Your task to perform on an android device: What's the news this morning? Image 0: 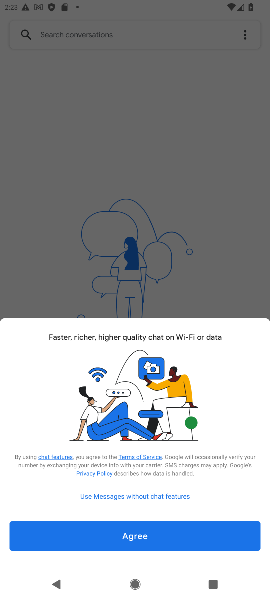
Step 0: press home button
Your task to perform on an android device: What's the news this morning? Image 1: 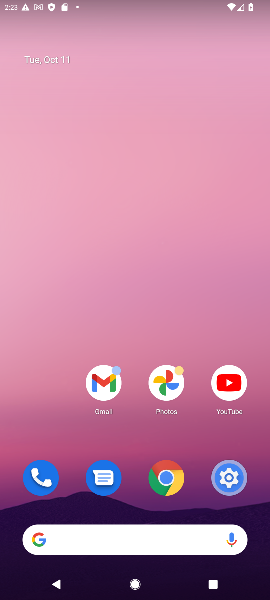
Step 1: click (162, 481)
Your task to perform on an android device: What's the news this morning? Image 2: 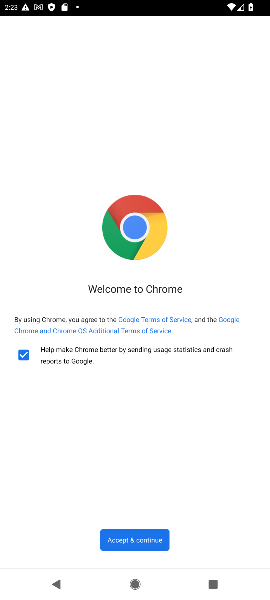
Step 2: click (135, 542)
Your task to perform on an android device: What's the news this morning? Image 3: 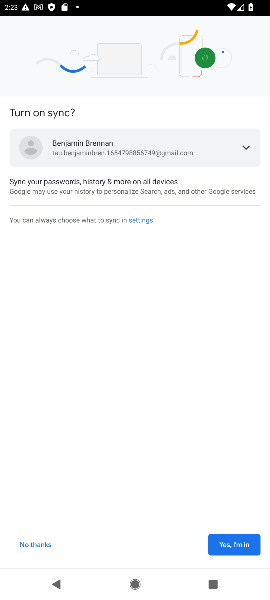
Step 3: click (230, 553)
Your task to perform on an android device: What's the news this morning? Image 4: 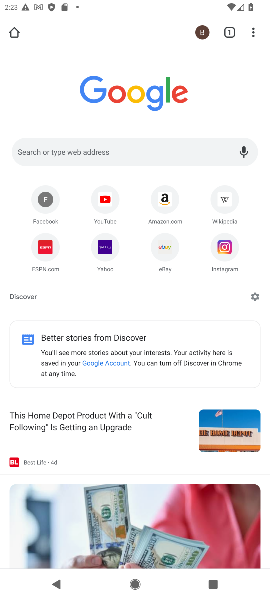
Step 4: click (138, 143)
Your task to perform on an android device: What's the news this morning? Image 5: 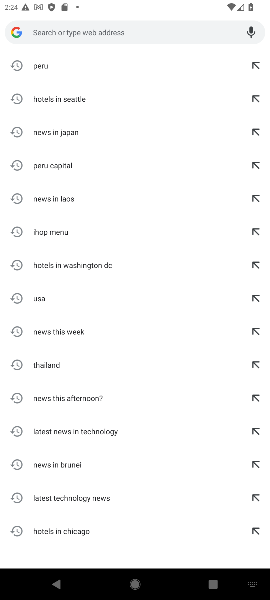
Step 5: type "news this morning"
Your task to perform on an android device: What's the news this morning? Image 6: 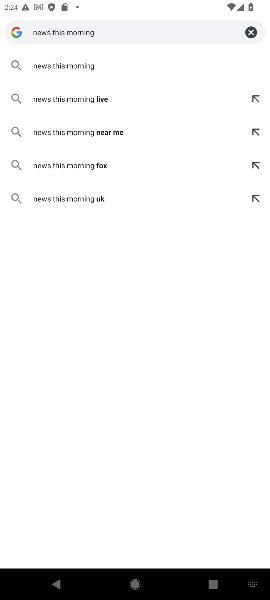
Step 6: press enter
Your task to perform on an android device: What's the news this morning? Image 7: 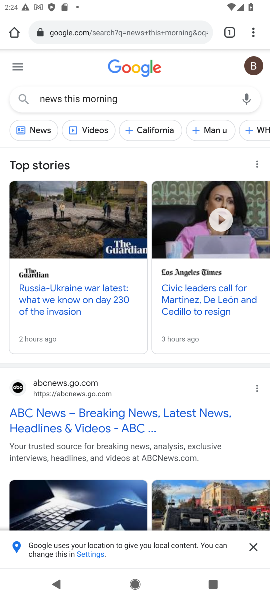
Step 7: task complete